Your task to perform on an android device: Open the calendar and show me this week's events? Image 0: 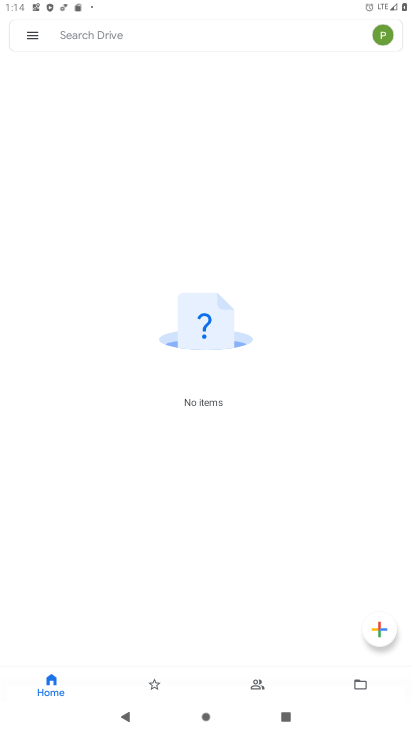
Step 0: press home button
Your task to perform on an android device: Open the calendar and show me this week's events? Image 1: 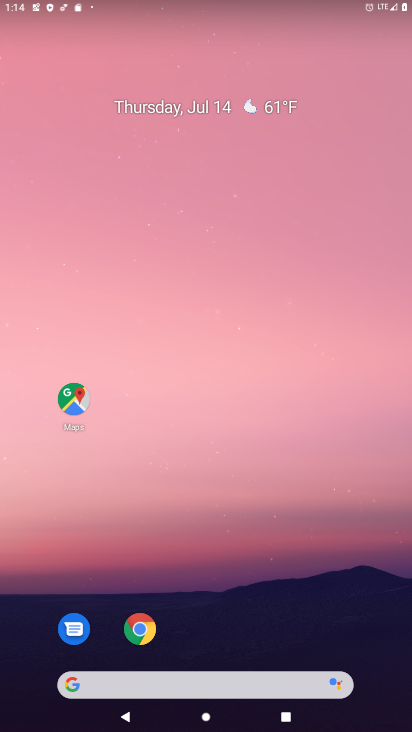
Step 1: drag from (230, 606) to (206, 137)
Your task to perform on an android device: Open the calendar and show me this week's events? Image 2: 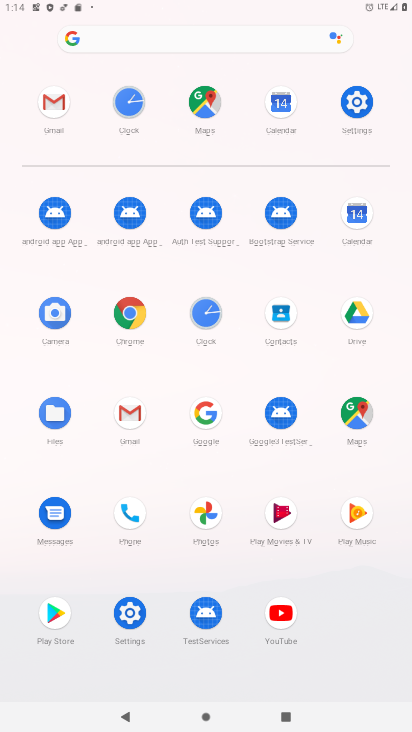
Step 2: click (361, 222)
Your task to perform on an android device: Open the calendar and show me this week's events? Image 3: 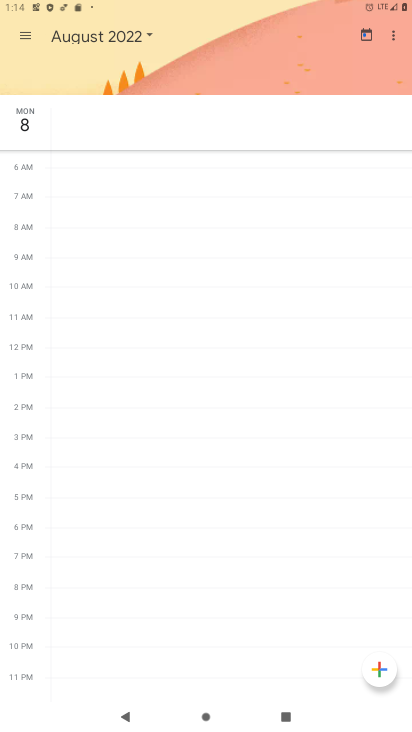
Step 3: click (26, 33)
Your task to perform on an android device: Open the calendar and show me this week's events? Image 4: 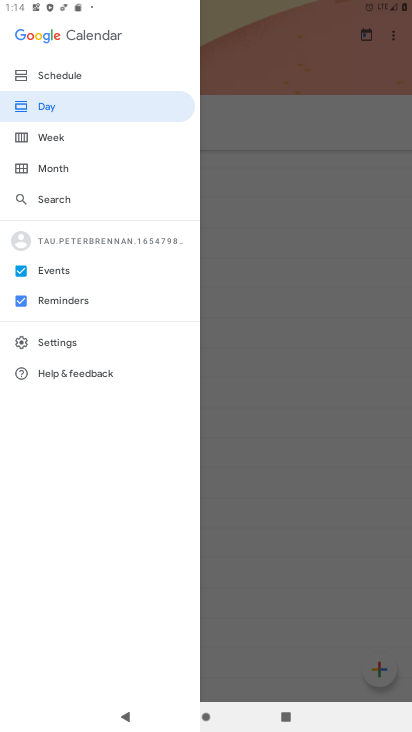
Step 4: click (53, 138)
Your task to perform on an android device: Open the calendar and show me this week's events? Image 5: 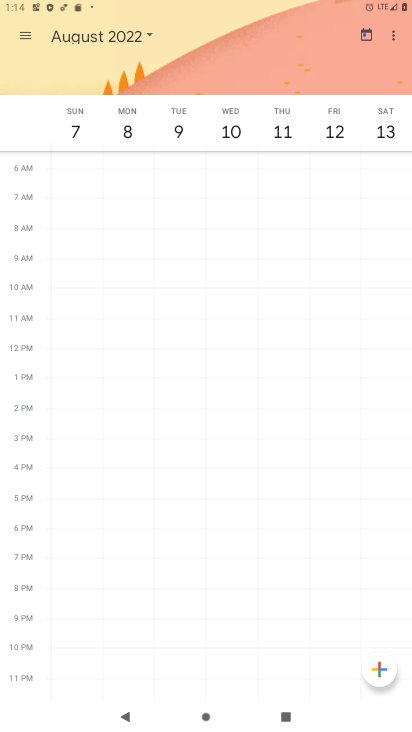
Step 5: click (147, 32)
Your task to perform on an android device: Open the calendar and show me this week's events? Image 6: 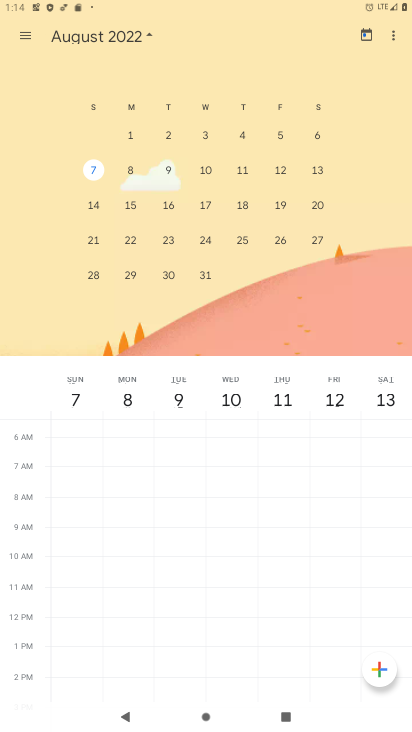
Step 6: drag from (74, 210) to (350, 219)
Your task to perform on an android device: Open the calendar and show me this week's events? Image 7: 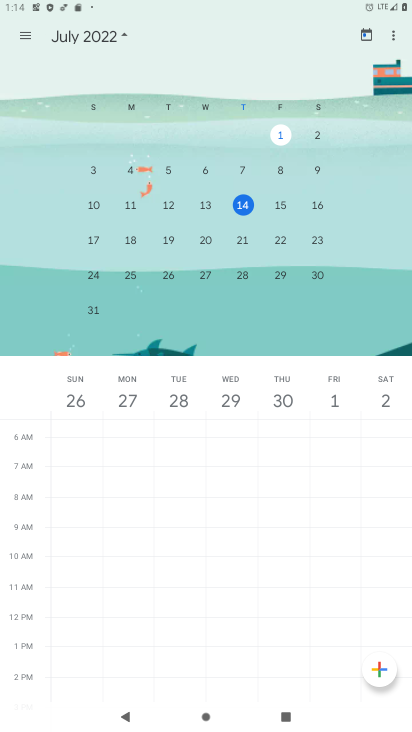
Step 7: click (208, 207)
Your task to perform on an android device: Open the calendar and show me this week's events? Image 8: 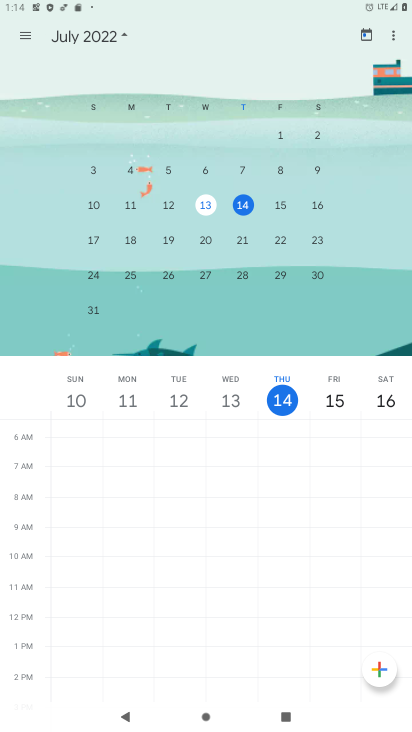
Step 8: task complete